Your task to perform on an android device: turn on airplane mode Image 0: 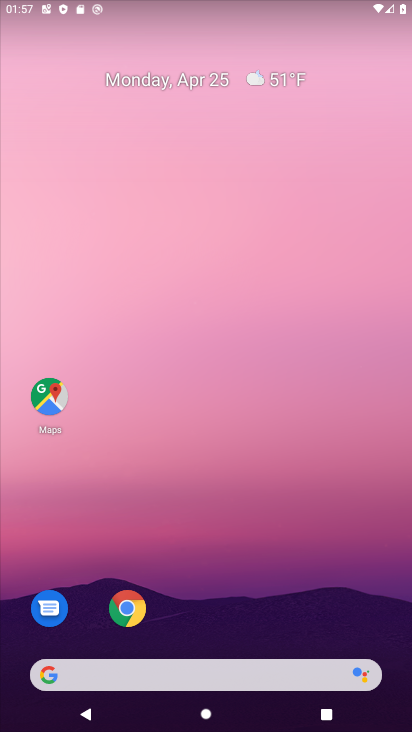
Step 0: drag from (200, 632) to (220, 87)
Your task to perform on an android device: turn on airplane mode Image 1: 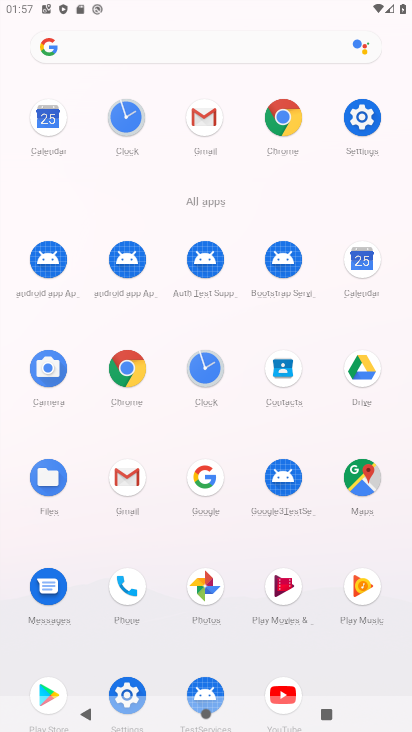
Step 1: click (373, 120)
Your task to perform on an android device: turn on airplane mode Image 2: 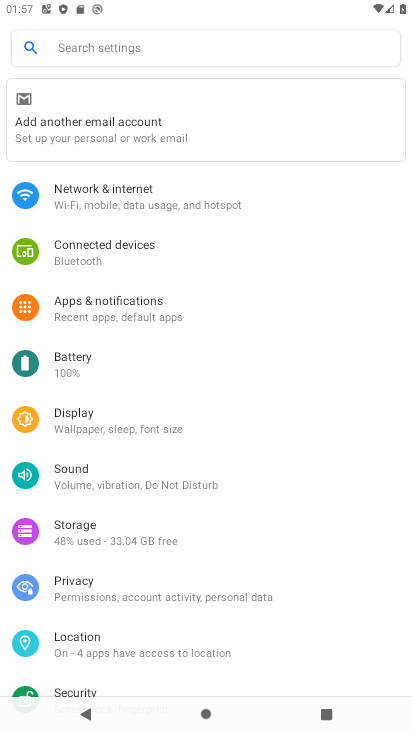
Step 2: click (191, 198)
Your task to perform on an android device: turn on airplane mode Image 3: 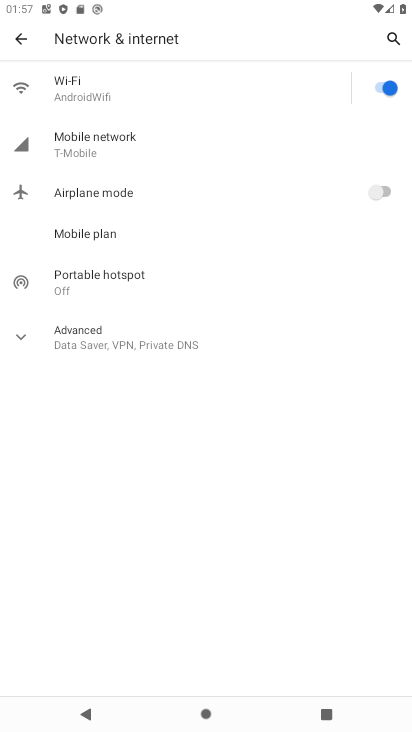
Step 3: click (381, 193)
Your task to perform on an android device: turn on airplane mode Image 4: 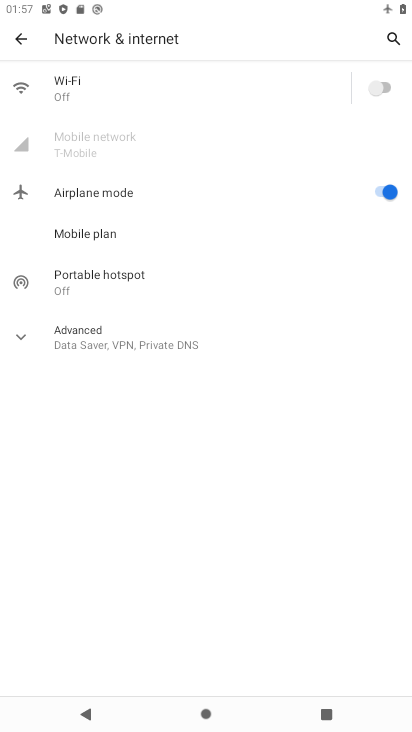
Step 4: task complete